Your task to perform on an android device: delete a single message in the gmail app Image 0: 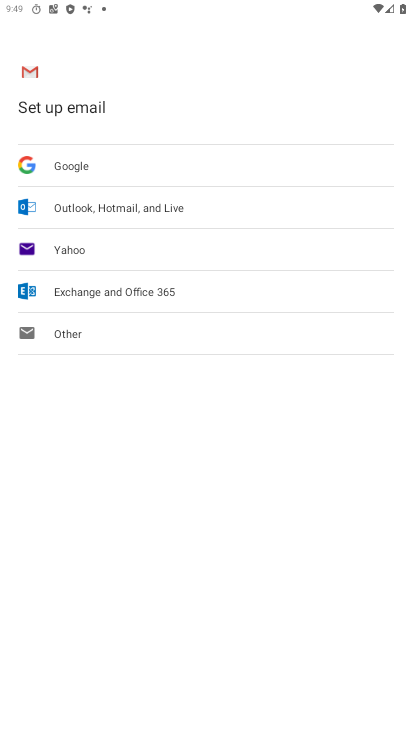
Step 0: drag from (237, 722) to (164, 270)
Your task to perform on an android device: delete a single message in the gmail app Image 1: 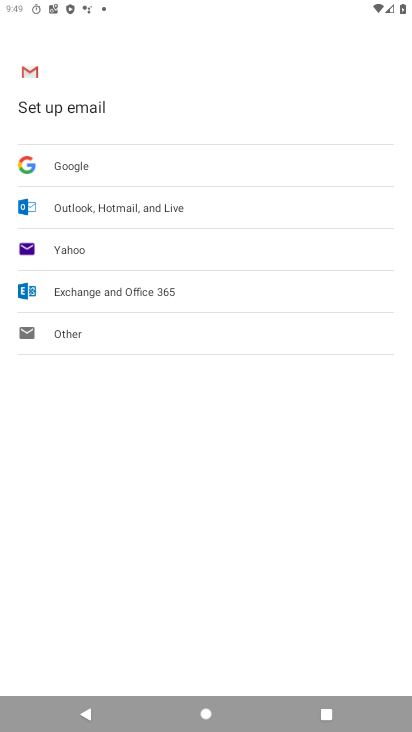
Step 1: press back button
Your task to perform on an android device: delete a single message in the gmail app Image 2: 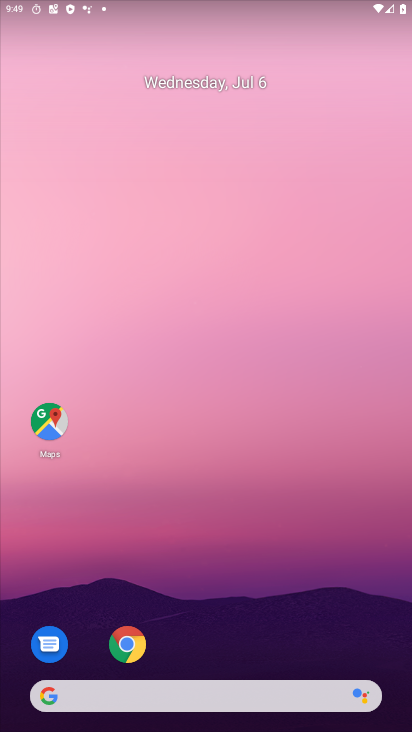
Step 2: drag from (158, 688) to (139, 237)
Your task to perform on an android device: delete a single message in the gmail app Image 3: 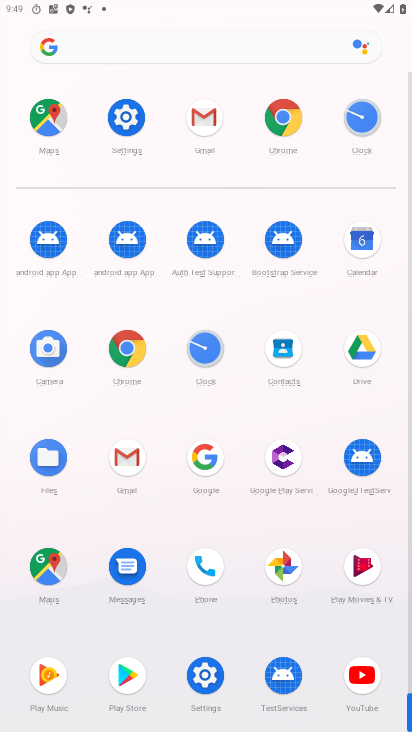
Step 3: click (114, 463)
Your task to perform on an android device: delete a single message in the gmail app Image 4: 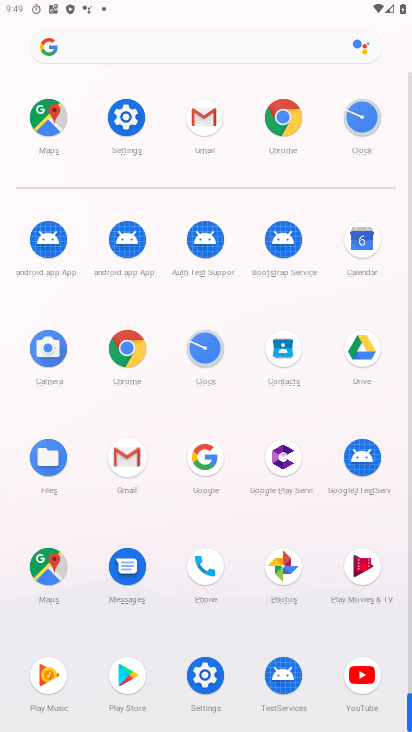
Step 4: click (115, 461)
Your task to perform on an android device: delete a single message in the gmail app Image 5: 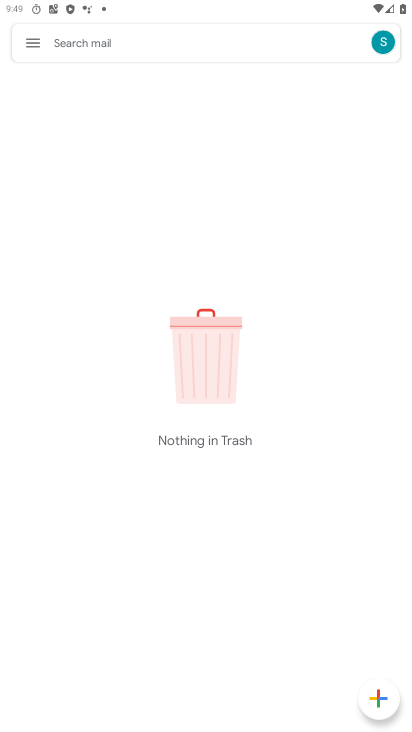
Step 5: click (30, 45)
Your task to perform on an android device: delete a single message in the gmail app Image 6: 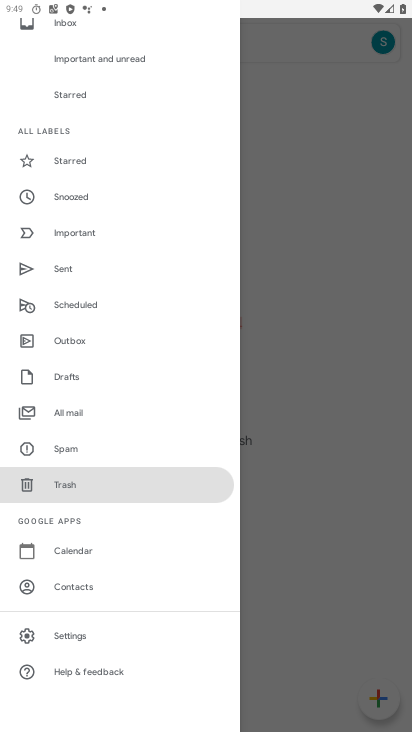
Step 6: click (64, 419)
Your task to perform on an android device: delete a single message in the gmail app Image 7: 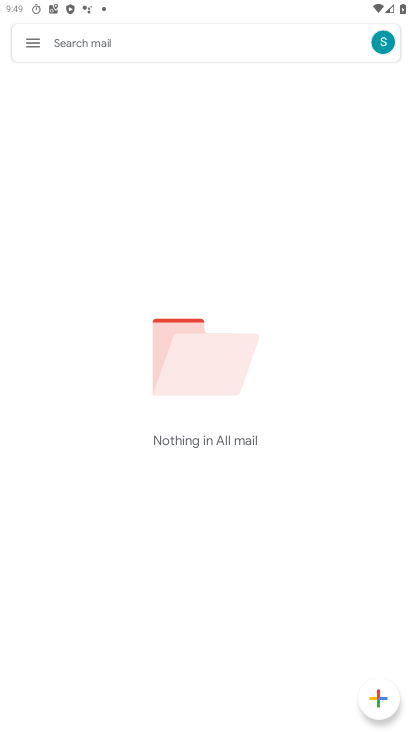
Step 7: press back button
Your task to perform on an android device: delete a single message in the gmail app Image 8: 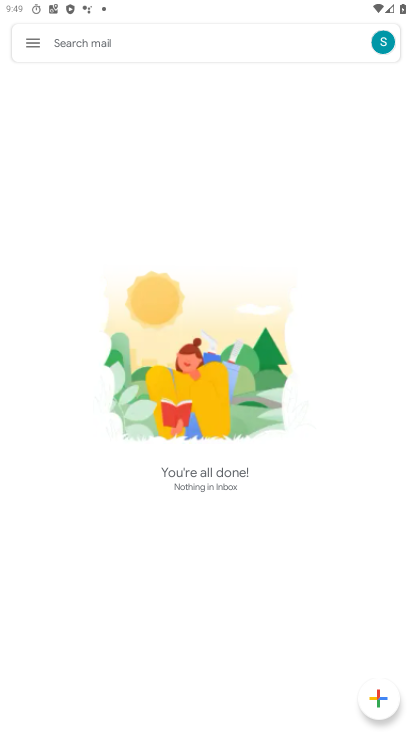
Step 8: click (31, 31)
Your task to perform on an android device: delete a single message in the gmail app Image 9: 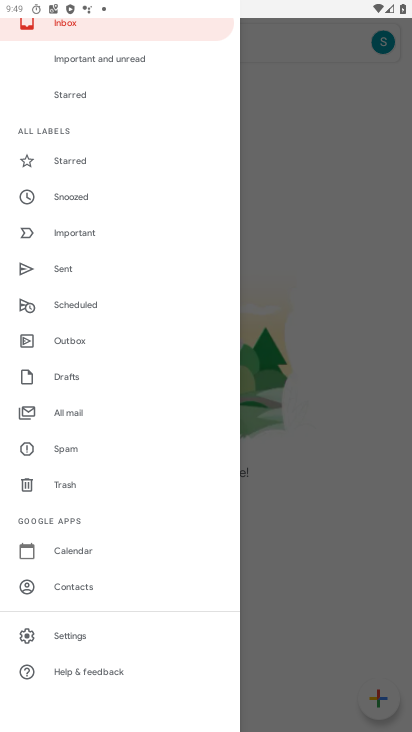
Step 9: click (57, 410)
Your task to perform on an android device: delete a single message in the gmail app Image 10: 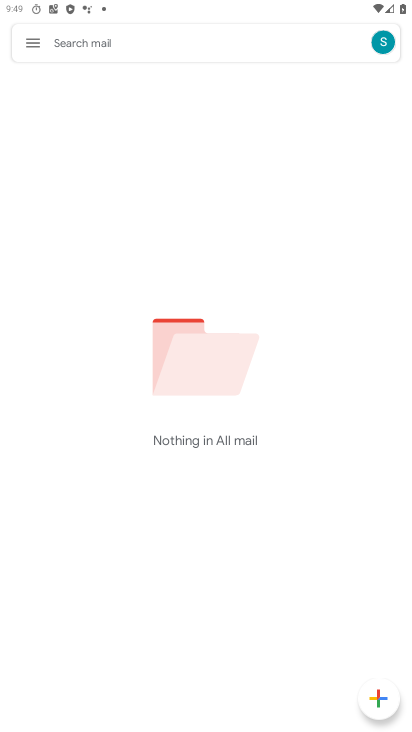
Step 10: task complete